Your task to perform on an android device: open device folders in google photos Image 0: 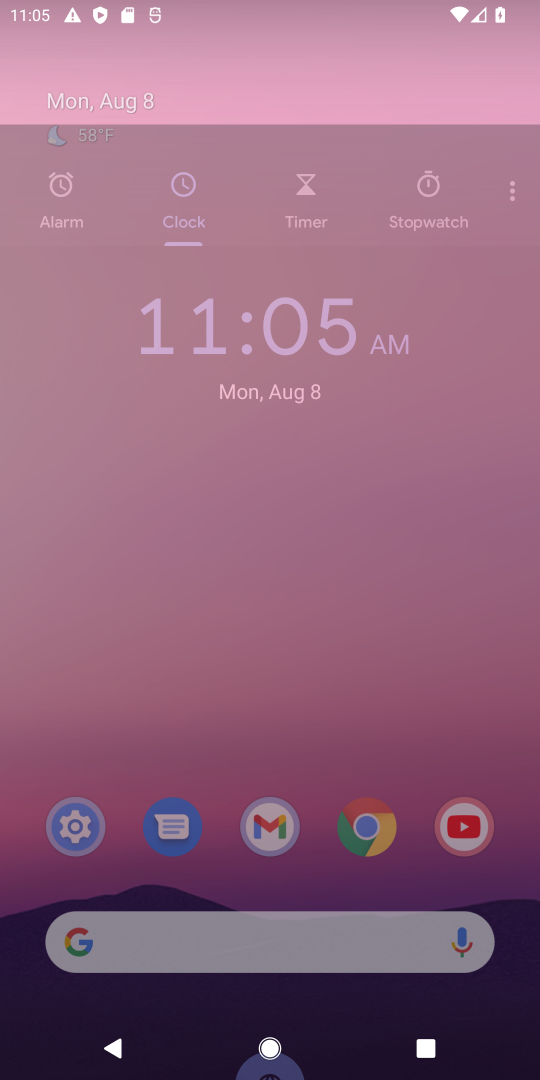
Step 0: press home button
Your task to perform on an android device: open device folders in google photos Image 1: 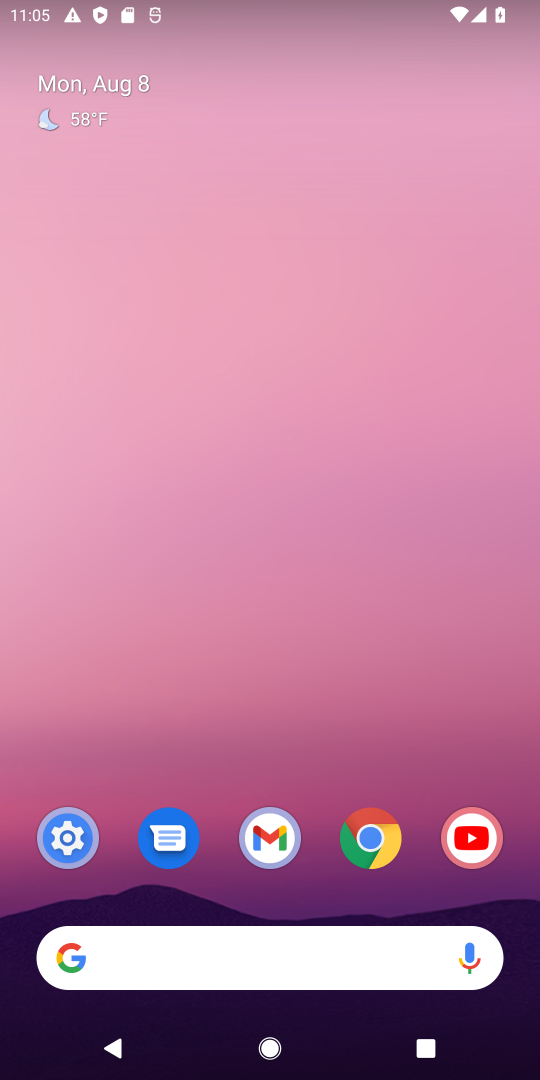
Step 1: drag from (320, 908) to (301, 212)
Your task to perform on an android device: open device folders in google photos Image 2: 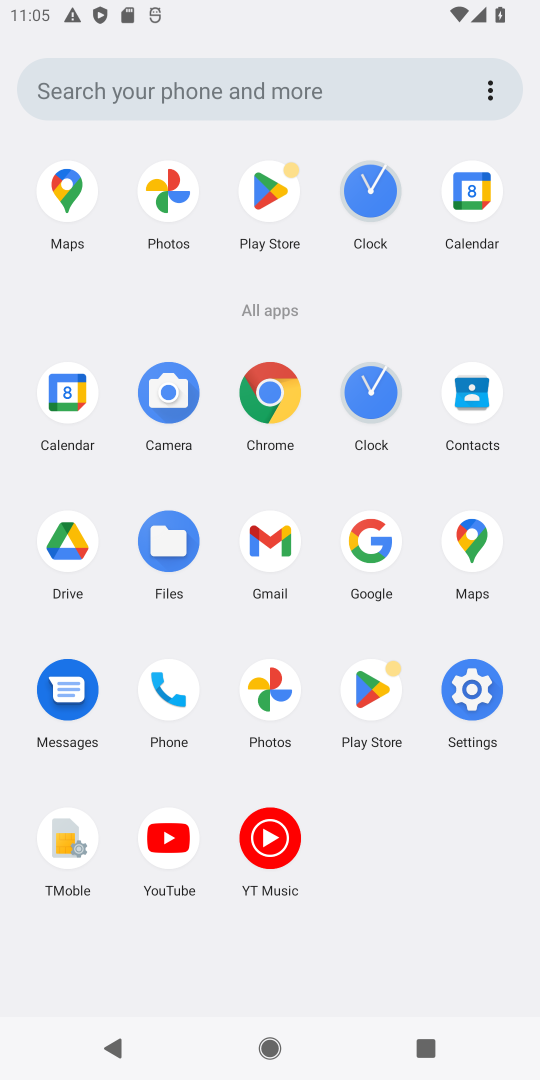
Step 2: click (167, 194)
Your task to perform on an android device: open device folders in google photos Image 3: 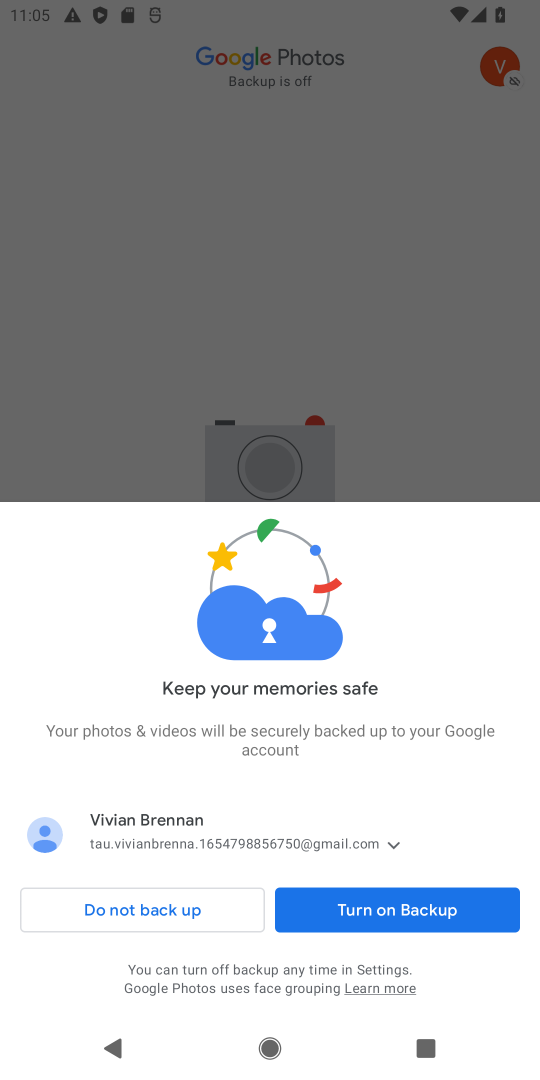
Step 3: click (175, 911)
Your task to perform on an android device: open device folders in google photos Image 4: 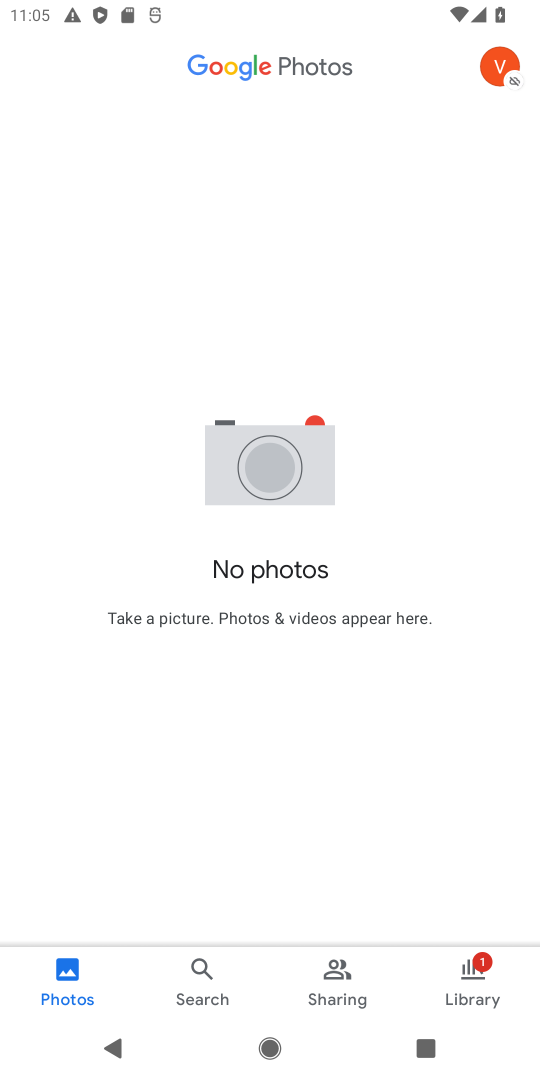
Step 4: click (504, 68)
Your task to perform on an android device: open device folders in google photos Image 5: 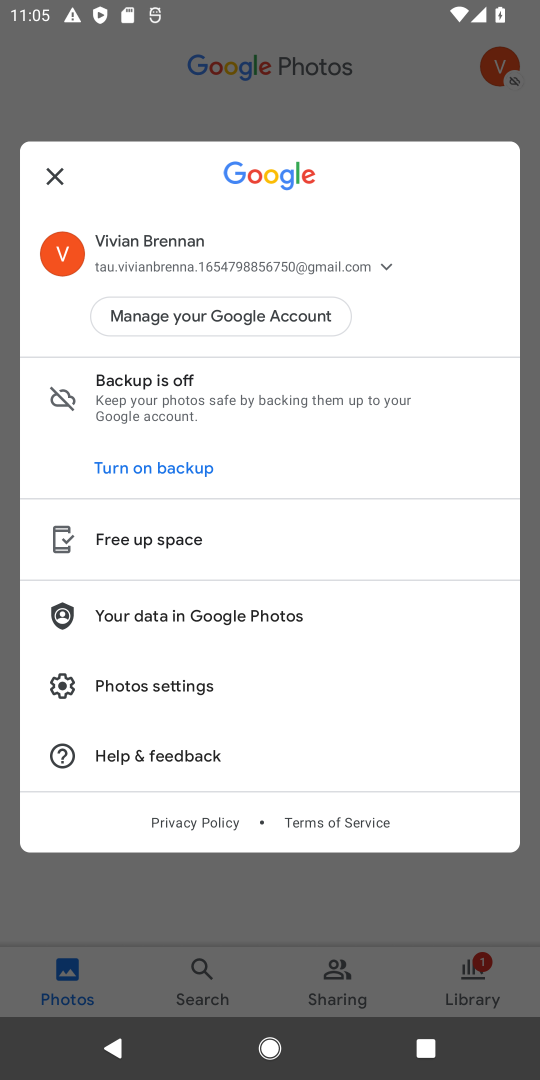
Step 5: task complete